Your task to perform on an android device: open a new tab in the chrome app Image 0: 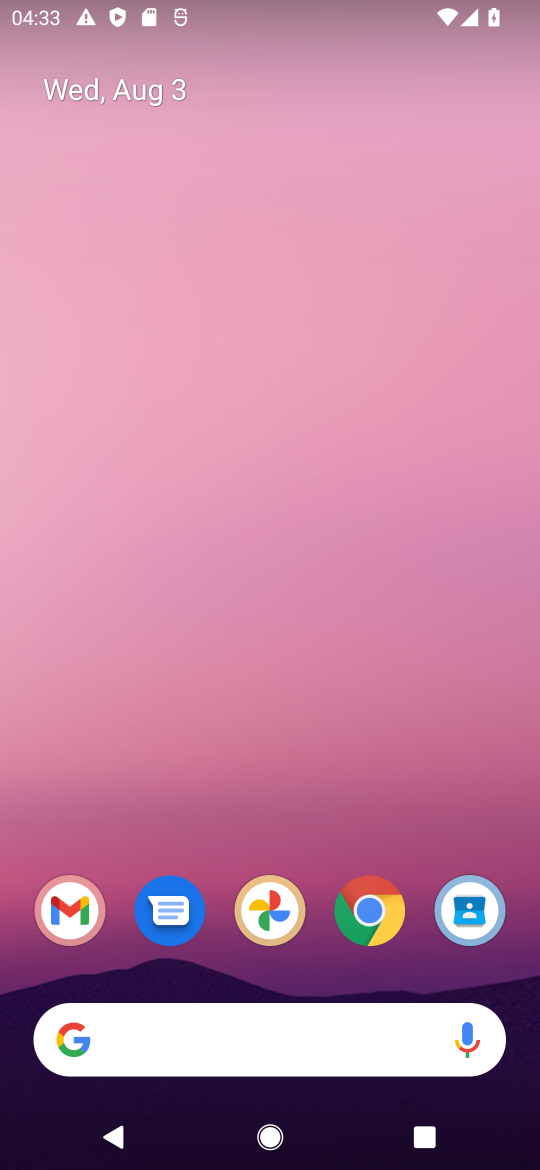
Step 0: click (369, 897)
Your task to perform on an android device: open a new tab in the chrome app Image 1: 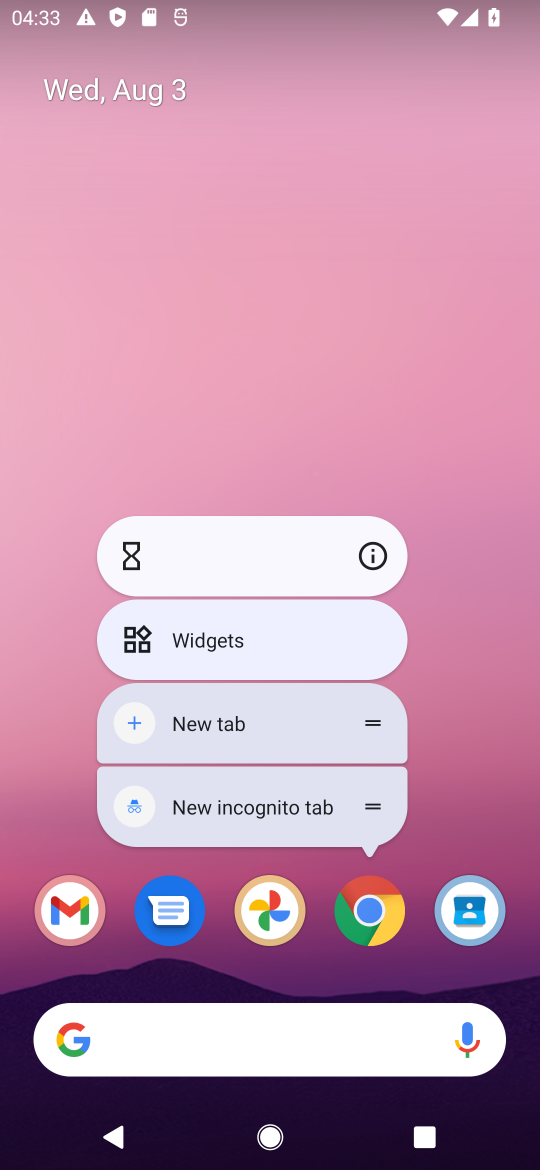
Step 1: click (372, 918)
Your task to perform on an android device: open a new tab in the chrome app Image 2: 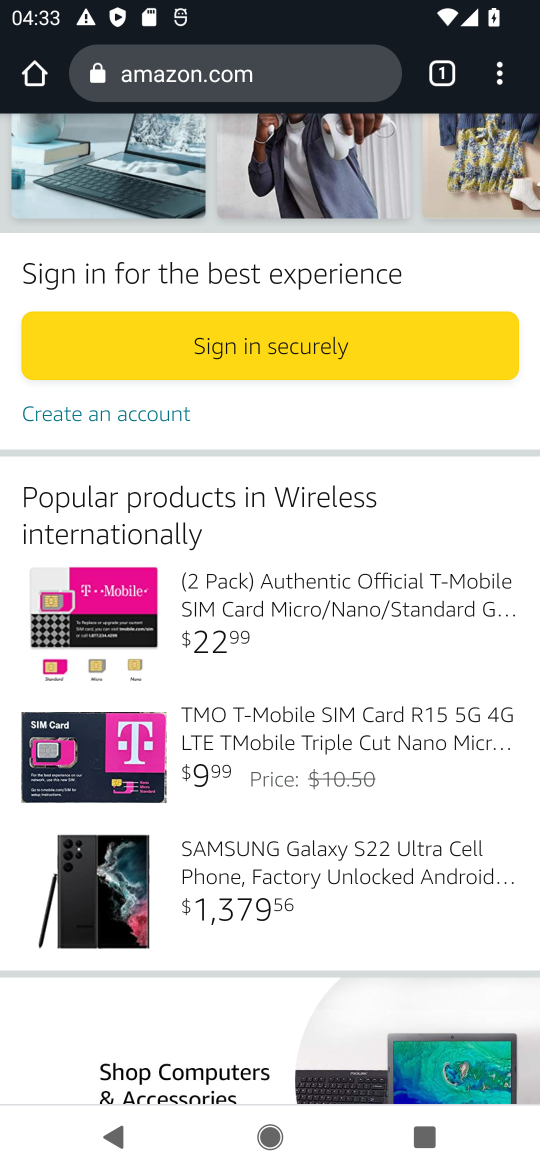
Step 2: click (434, 77)
Your task to perform on an android device: open a new tab in the chrome app Image 3: 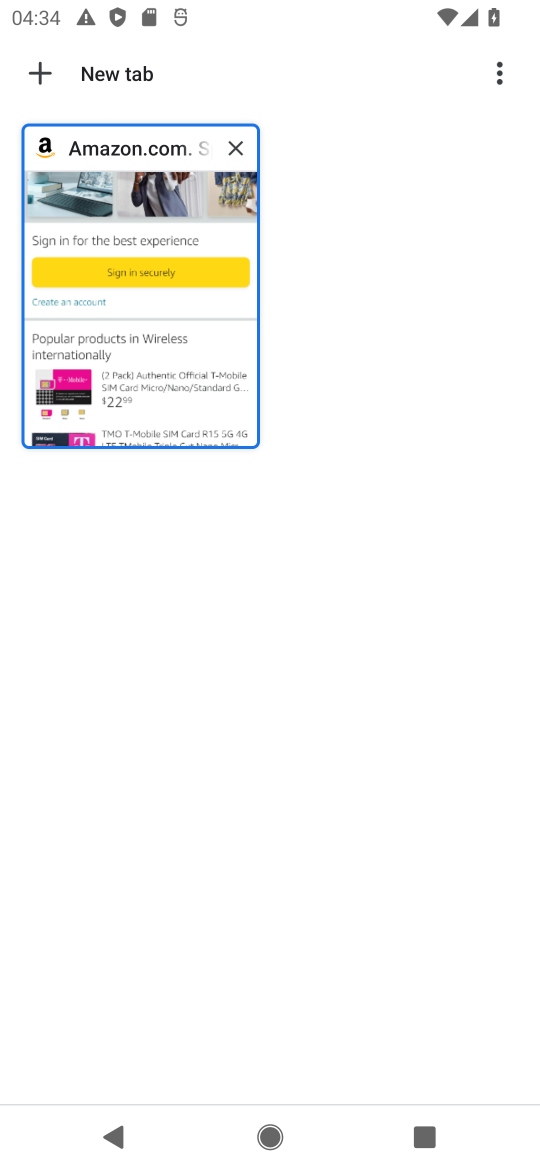
Step 3: click (40, 67)
Your task to perform on an android device: open a new tab in the chrome app Image 4: 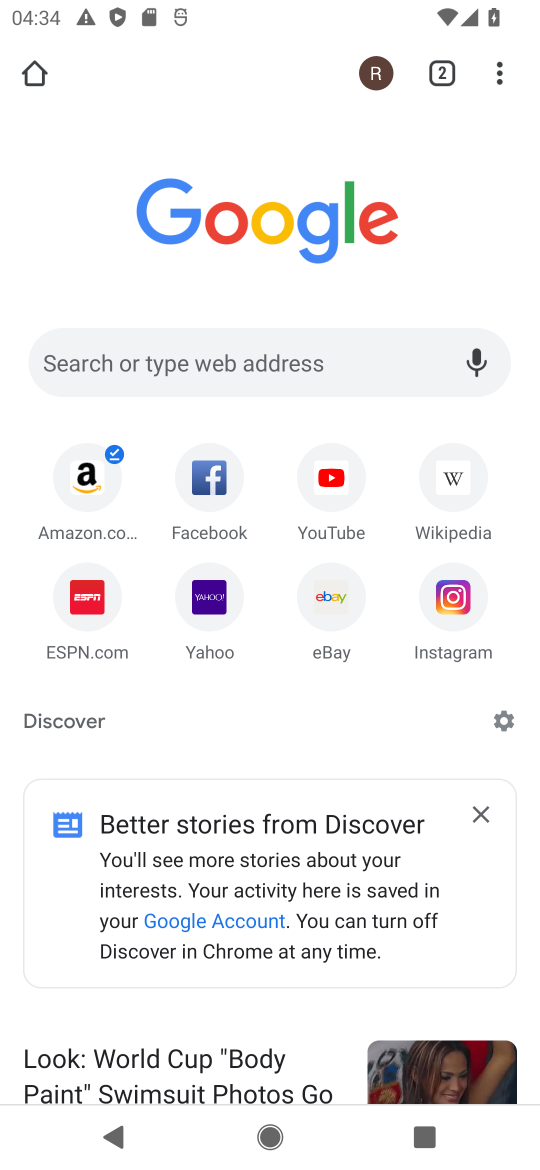
Step 4: task complete